Your task to perform on an android device: turn smart compose on in the gmail app Image 0: 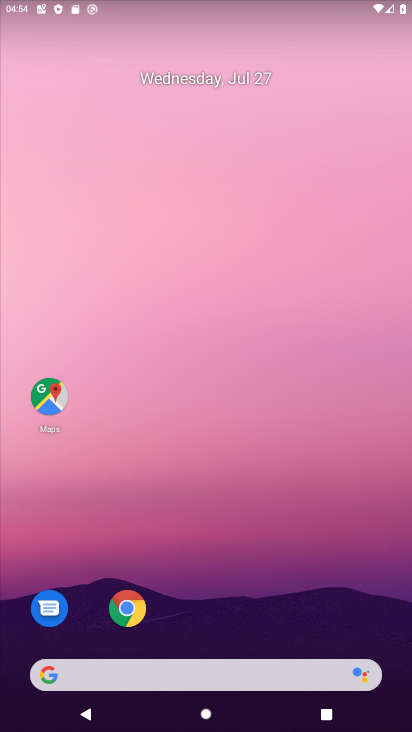
Step 0: press home button
Your task to perform on an android device: turn smart compose on in the gmail app Image 1: 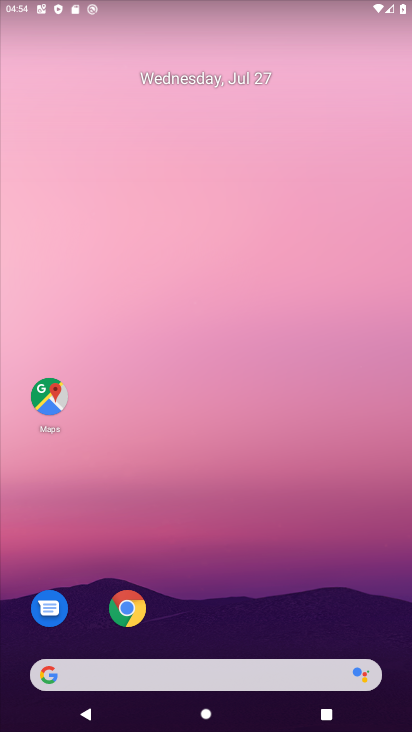
Step 1: drag from (261, 617) to (222, 315)
Your task to perform on an android device: turn smart compose on in the gmail app Image 2: 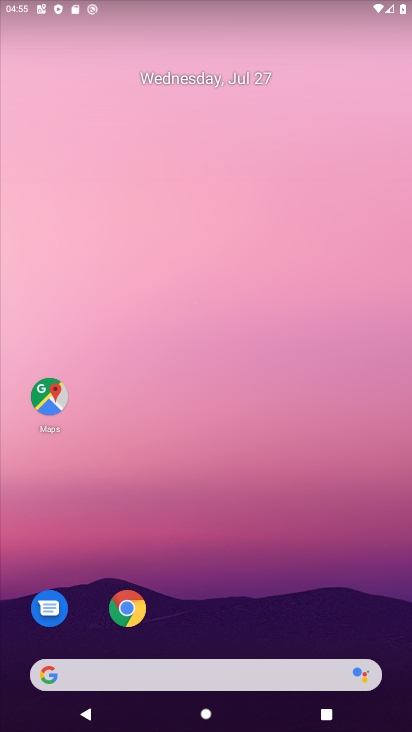
Step 2: drag from (222, 315) to (171, 10)
Your task to perform on an android device: turn smart compose on in the gmail app Image 3: 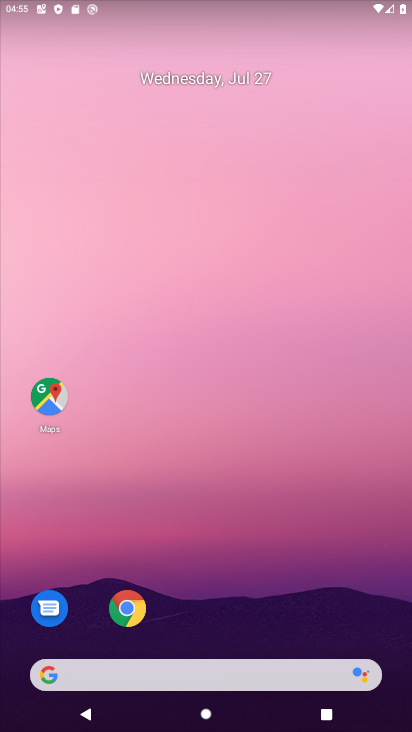
Step 3: drag from (277, 604) to (7, 25)
Your task to perform on an android device: turn smart compose on in the gmail app Image 4: 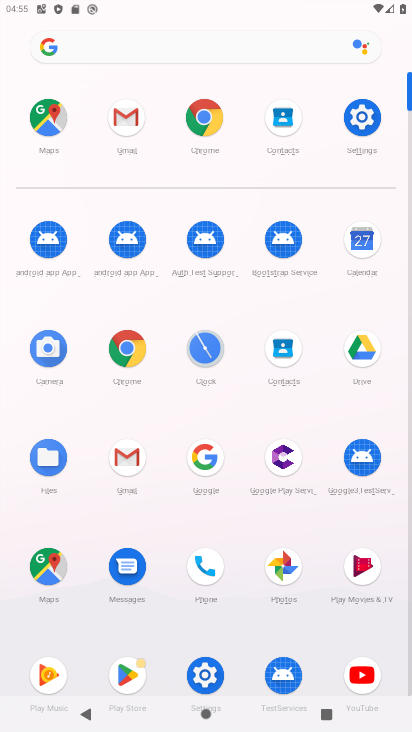
Step 4: click (119, 112)
Your task to perform on an android device: turn smart compose on in the gmail app Image 5: 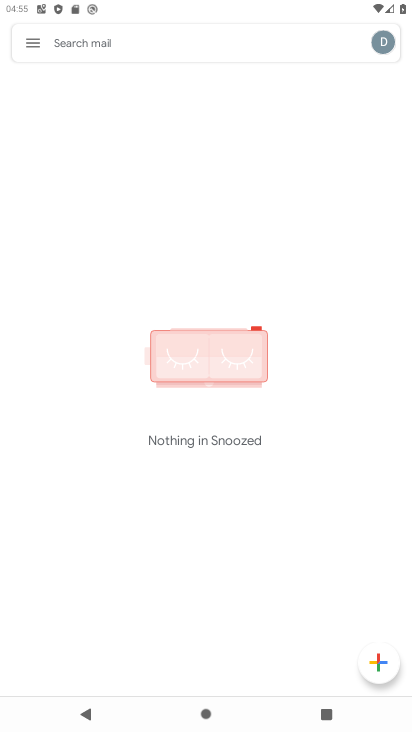
Step 5: click (26, 42)
Your task to perform on an android device: turn smart compose on in the gmail app Image 6: 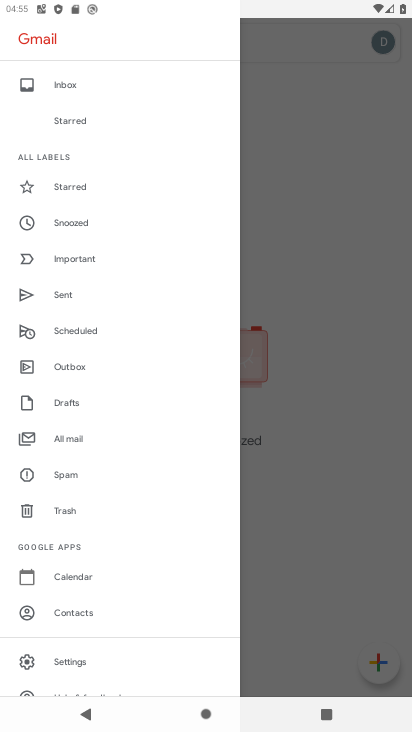
Step 6: click (79, 661)
Your task to perform on an android device: turn smart compose on in the gmail app Image 7: 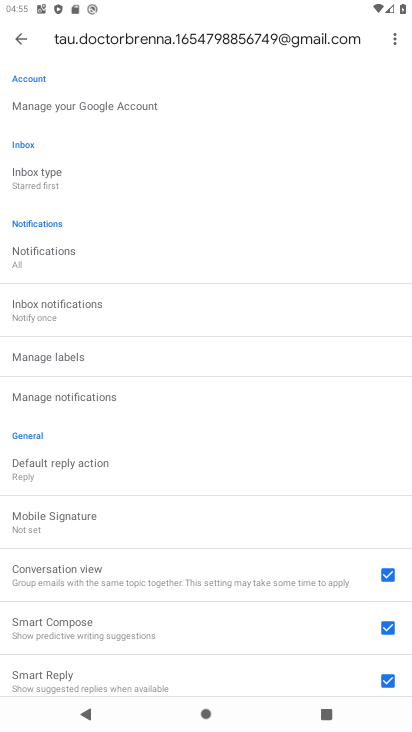
Step 7: task complete